Your task to perform on an android device: turn on translation in the chrome app Image 0: 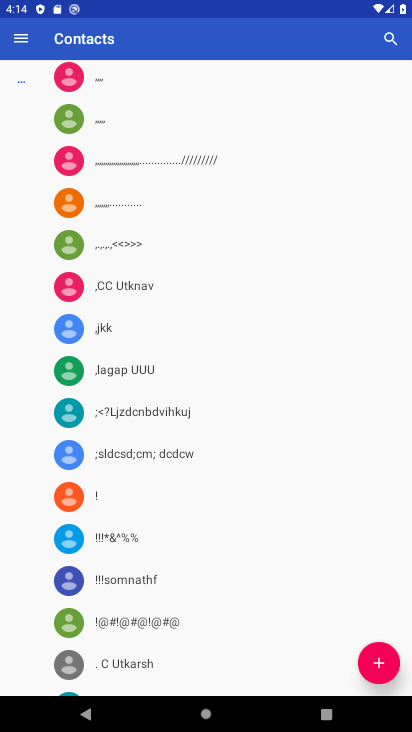
Step 0: press back button
Your task to perform on an android device: turn on translation in the chrome app Image 1: 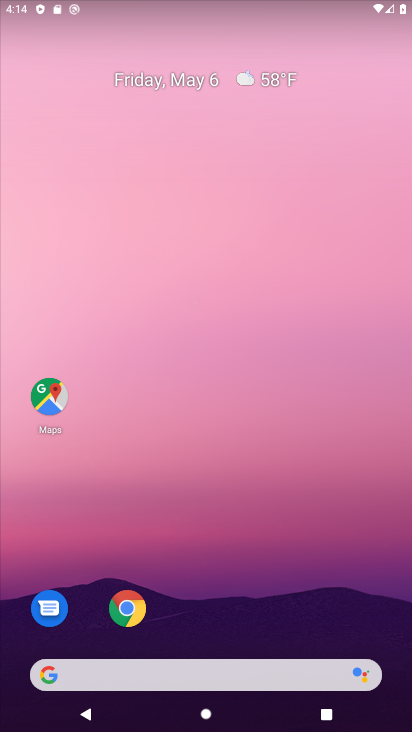
Step 1: click (136, 611)
Your task to perform on an android device: turn on translation in the chrome app Image 2: 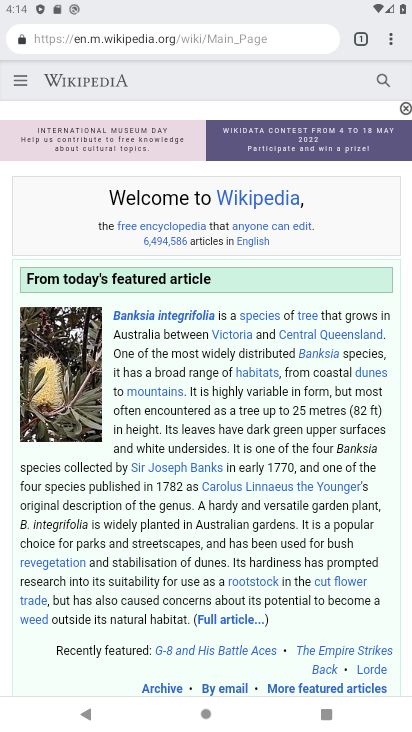
Step 2: drag from (392, 44) to (300, 470)
Your task to perform on an android device: turn on translation in the chrome app Image 3: 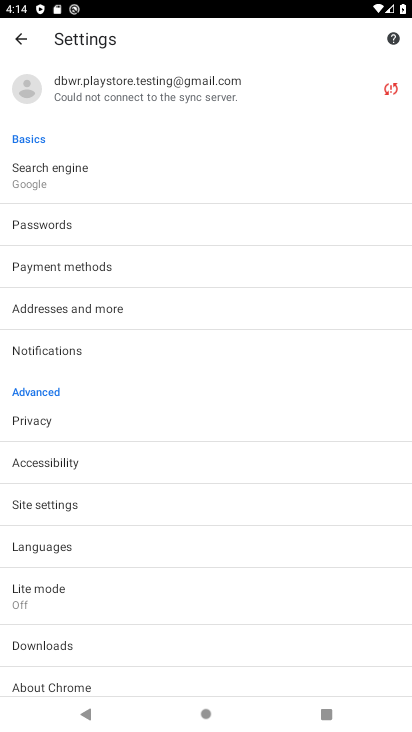
Step 3: click (111, 546)
Your task to perform on an android device: turn on translation in the chrome app Image 4: 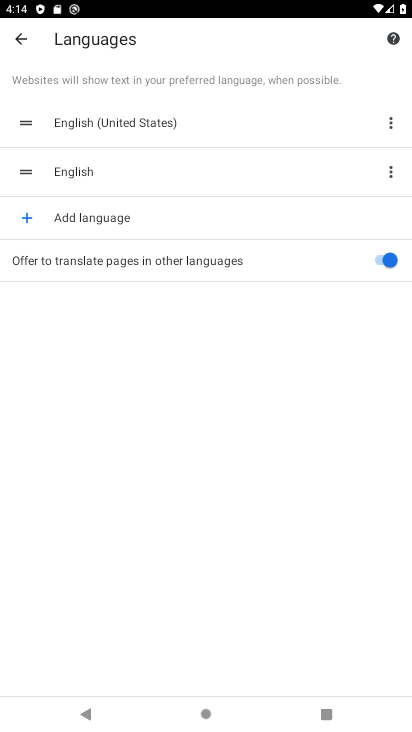
Step 4: task complete